Your task to perform on an android device: What's on my calendar tomorrow? Image 0: 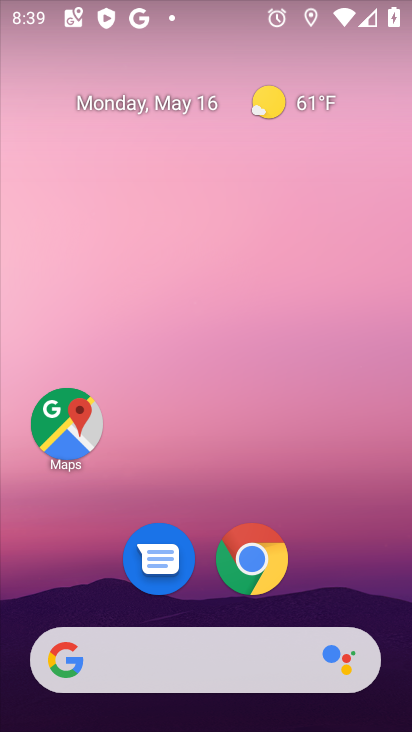
Step 0: drag from (362, 544) to (357, 106)
Your task to perform on an android device: What's on my calendar tomorrow? Image 1: 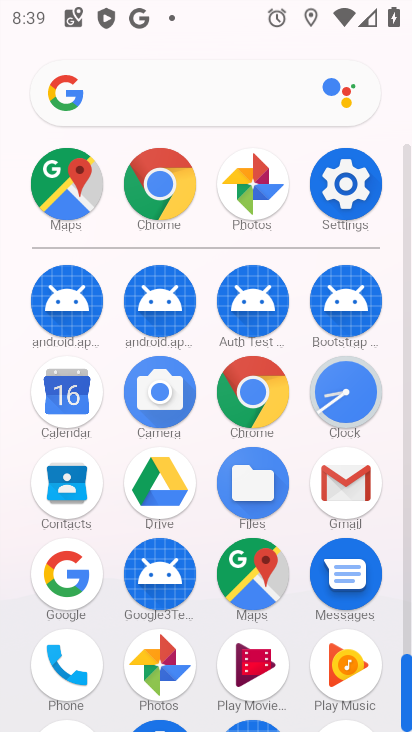
Step 1: click (68, 400)
Your task to perform on an android device: What's on my calendar tomorrow? Image 2: 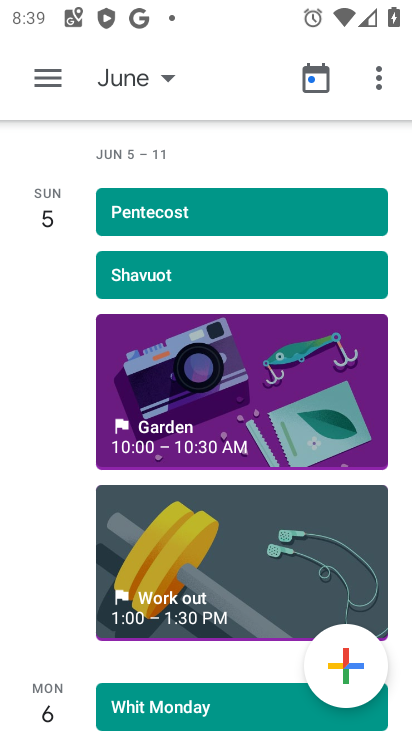
Step 2: click (114, 83)
Your task to perform on an android device: What's on my calendar tomorrow? Image 3: 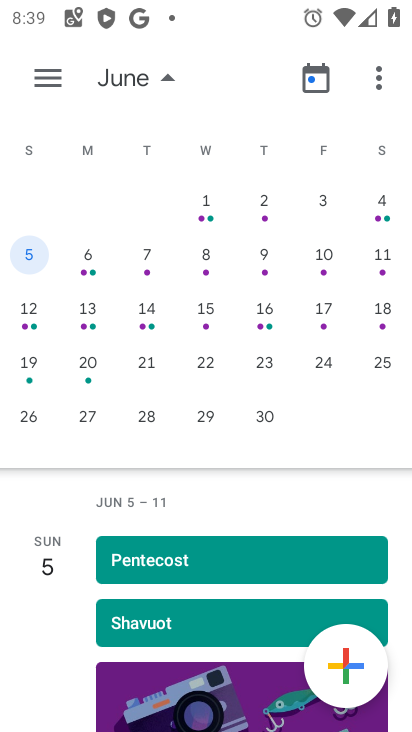
Step 3: drag from (71, 212) to (411, 217)
Your task to perform on an android device: What's on my calendar tomorrow? Image 4: 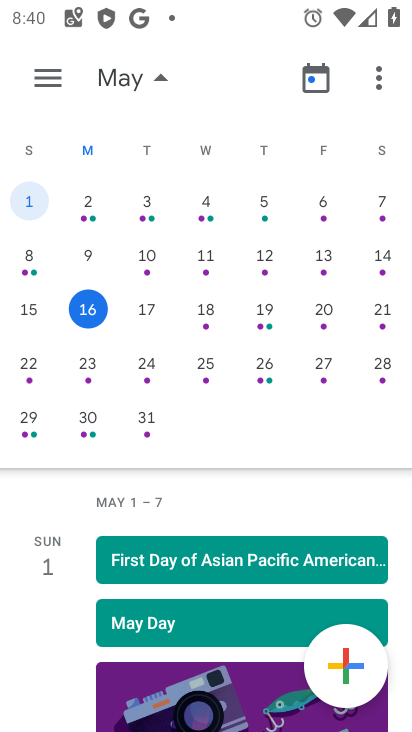
Step 4: click (147, 303)
Your task to perform on an android device: What's on my calendar tomorrow? Image 5: 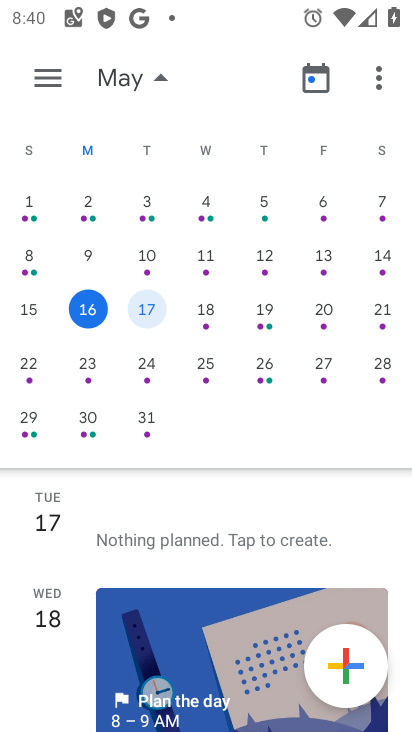
Step 5: task complete